Your task to perform on an android device: change text size in settings app Image 0: 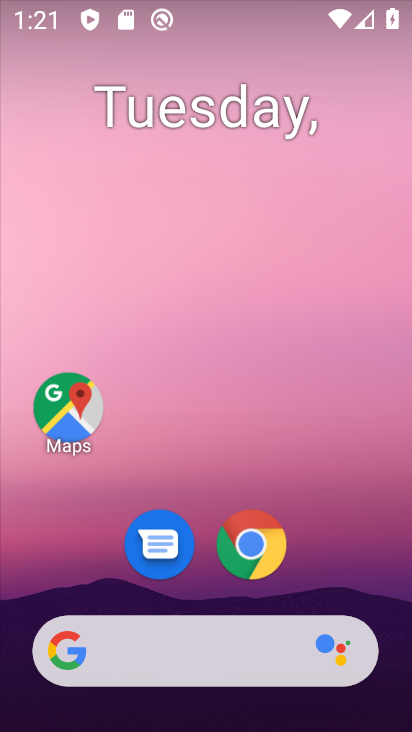
Step 0: drag from (360, 570) to (367, 202)
Your task to perform on an android device: change text size in settings app Image 1: 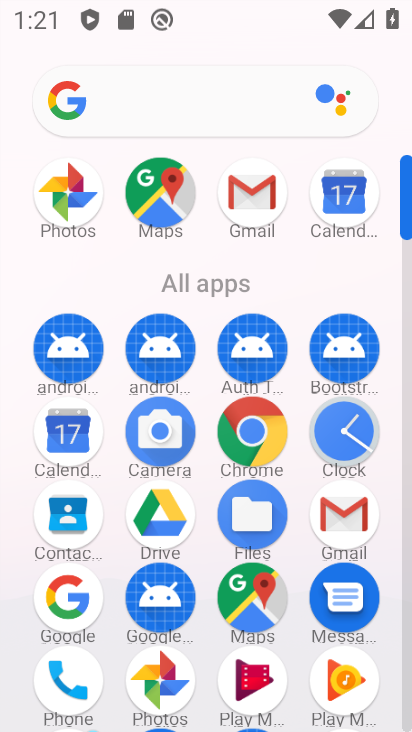
Step 1: drag from (210, 544) to (202, 292)
Your task to perform on an android device: change text size in settings app Image 2: 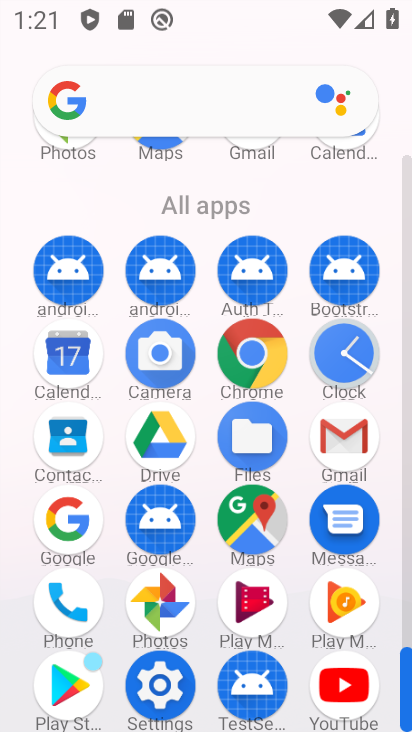
Step 2: click (185, 690)
Your task to perform on an android device: change text size in settings app Image 3: 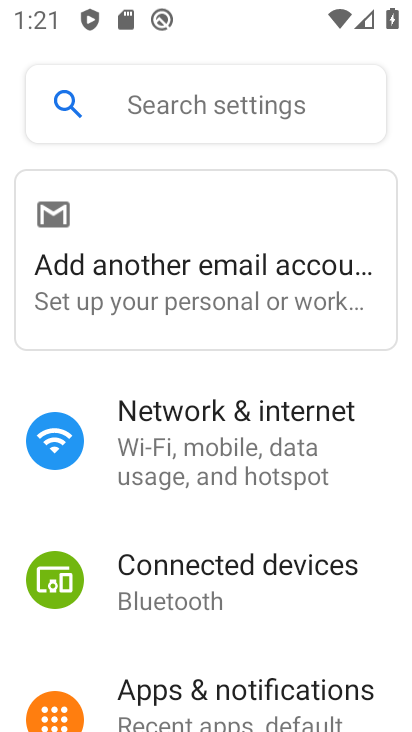
Step 3: drag from (370, 600) to (382, 460)
Your task to perform on an android device: change text size in settings app Image 4: 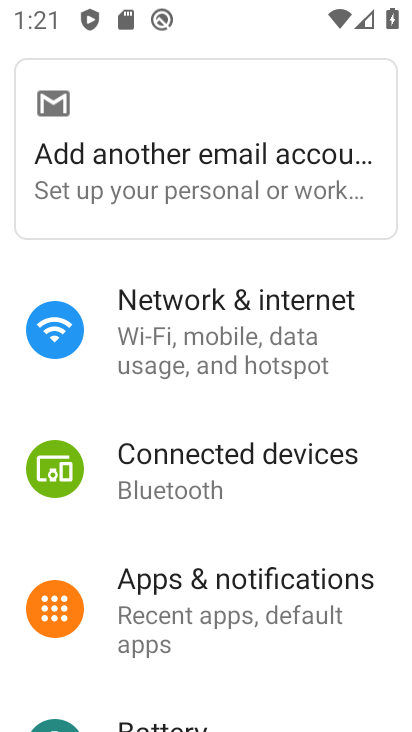
Step 4: drag from (343, 664) to (360, 491)
Your task to perform on an android device: change text size in settings app Image 5: 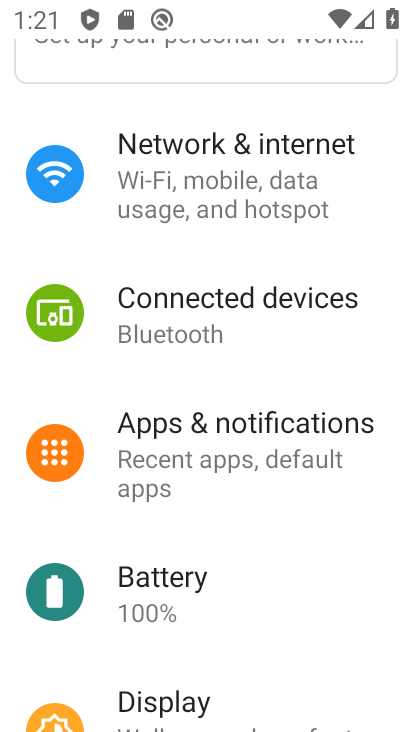
Step 5: drag from (347, 657) to (357, 522)
Your task to perform on an android device: change text size in settings app Image 6: 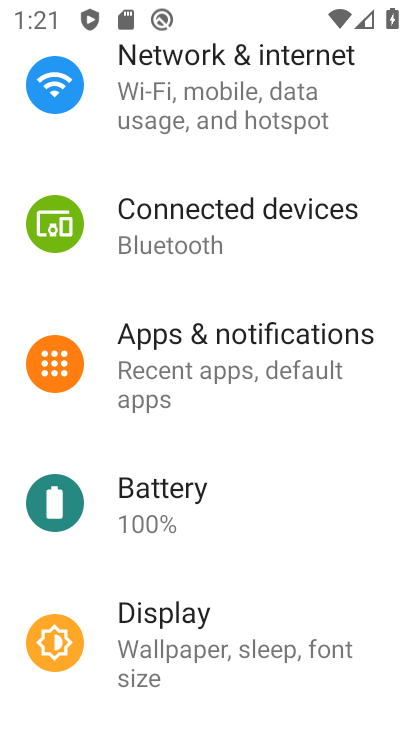
Step 6: drag from (339, 666) to (345, 510)
Your task to perform on an android device: change text size in settings app Image 7: 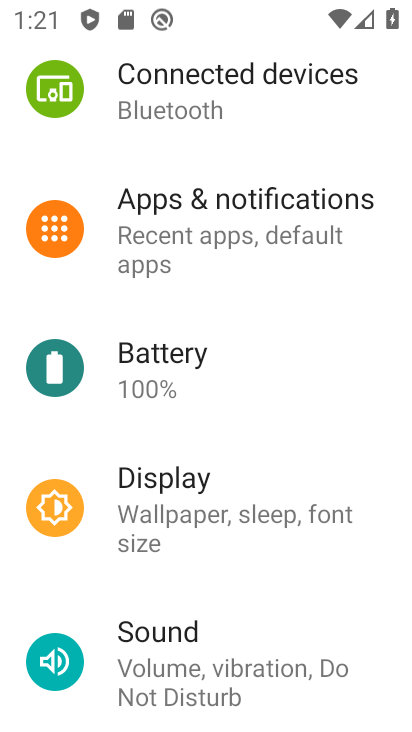
Step 7: drag from (347, 629) to (366, 461)
Your task to perform on an android device: change text size in settings app Image 8: 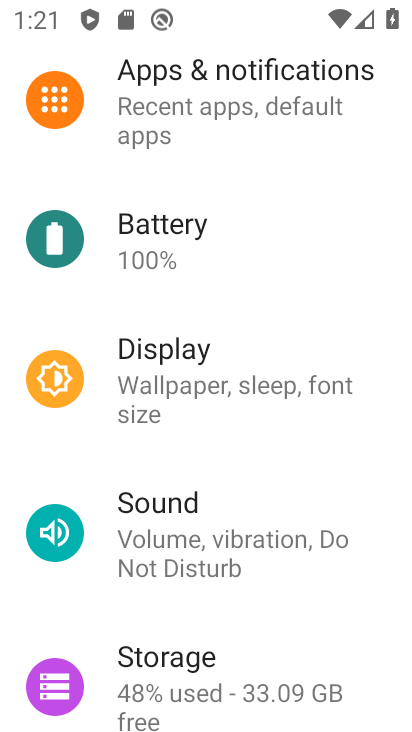
Step 8: drag from (377, 652) to (379, 477)
Your task to perform on an android device: change text size in settings app Image 9: 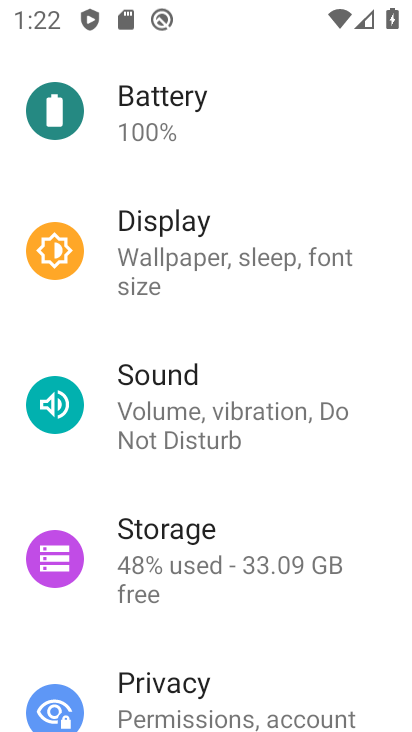
Step 9: click (231, 252)
Your task to perform on an android device: change text size in settings app Image 10: 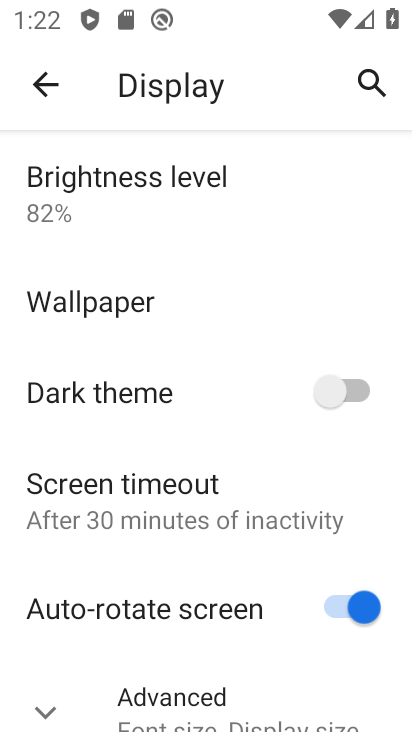
Step 10: click (209, 710)
Your task to perform on an android device: change text size in settings app Image 11: 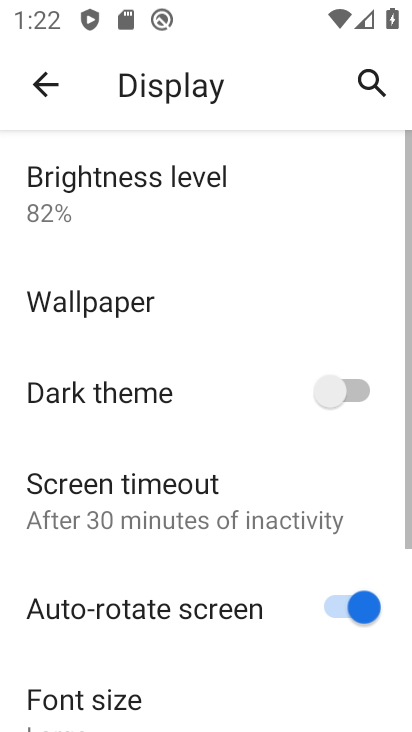
Step 11: drag from (299, 644) to (287, 210)
Your task to perform on an android device: change text size in settings app Image 12: 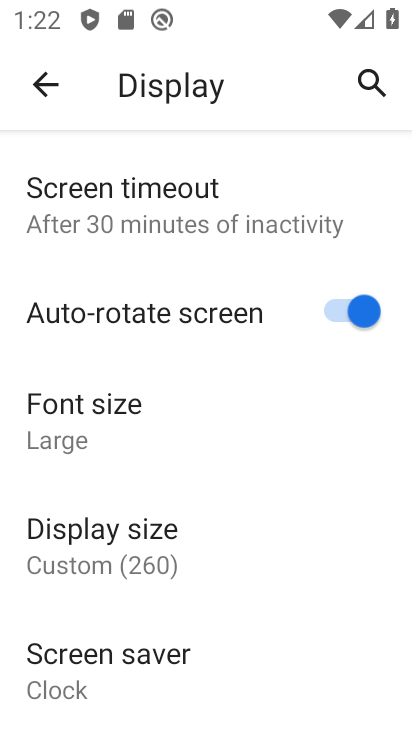
Step 12: click (60, 418)
Your task to perform on an android device: change text size in settings app Image 13: 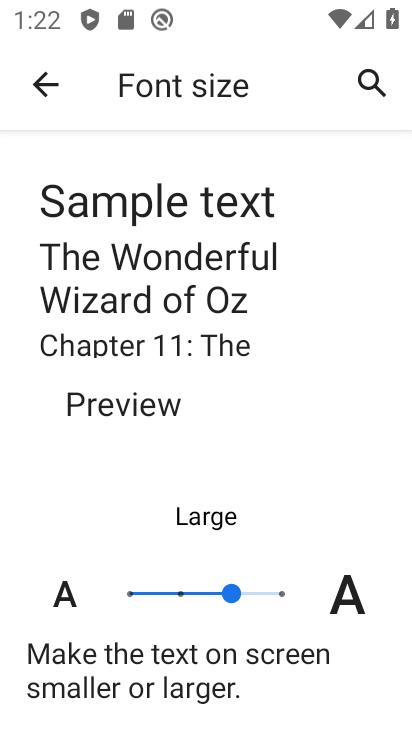
Step 13: click (177, 590)
Your task to perform on an android device: change text size in settings app Image 14: 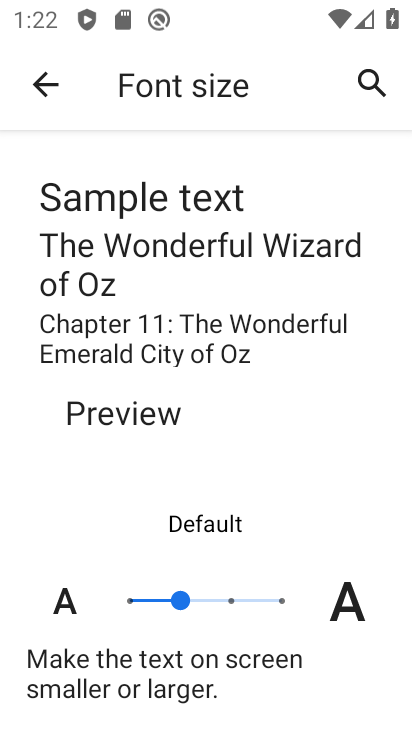
Step 14: task complete